Your task to perform on an android device: Go to location settings Image 0: 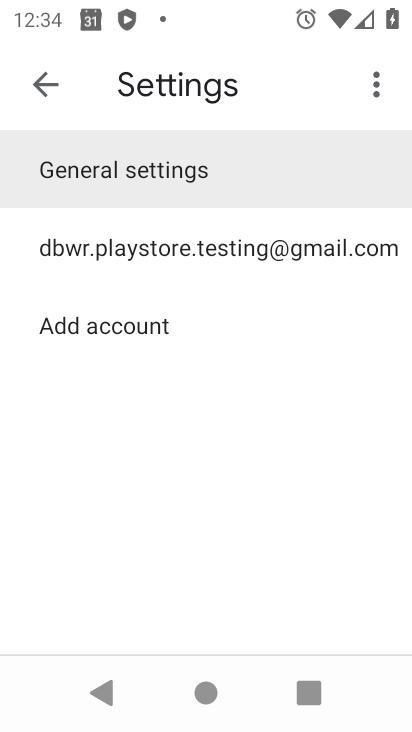
Step 0: press back button
Your task to perform on an android device: Go to location settings Image 1: 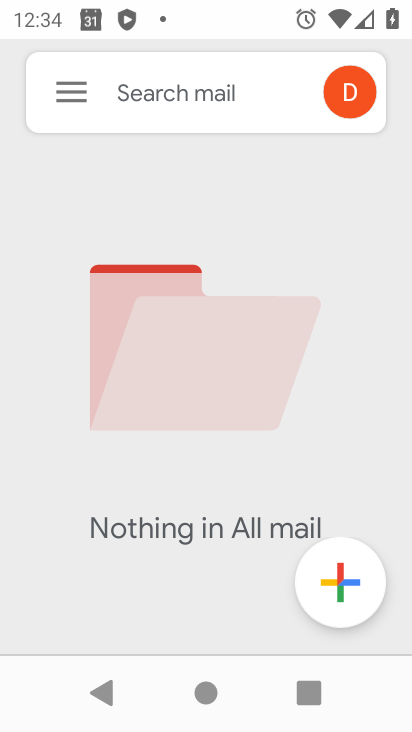
Step 1: press back button
Your task to perform on an android device: Go to location settings Image 2: 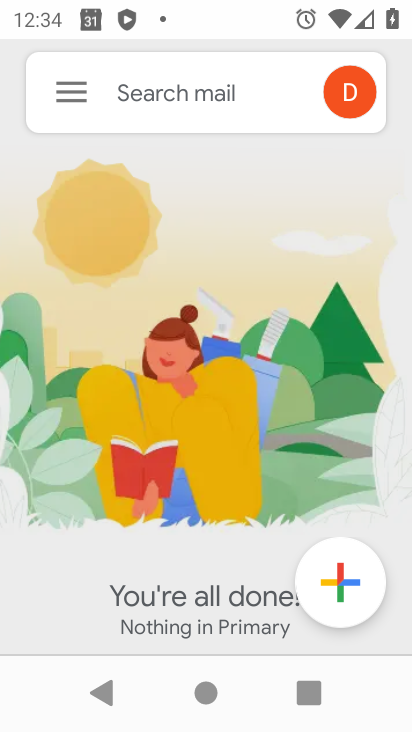
Step 2: press back button
Your task to perform on an android device: Go to location settings Image 3: 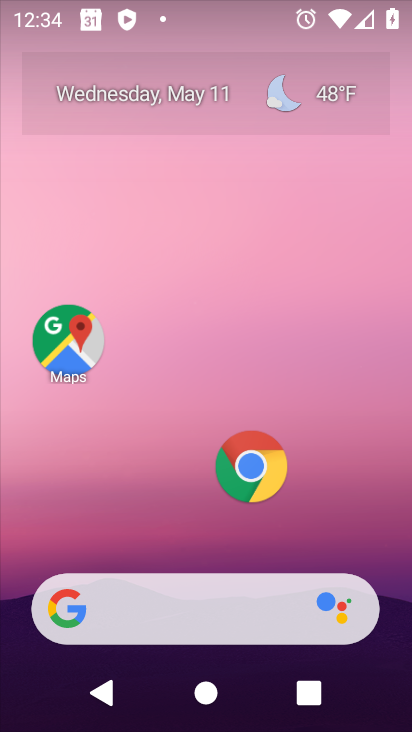
Step 3: drag from (142, 523) to (254, 57)
Your task to perform on an android device: Go to location settings Image 4: 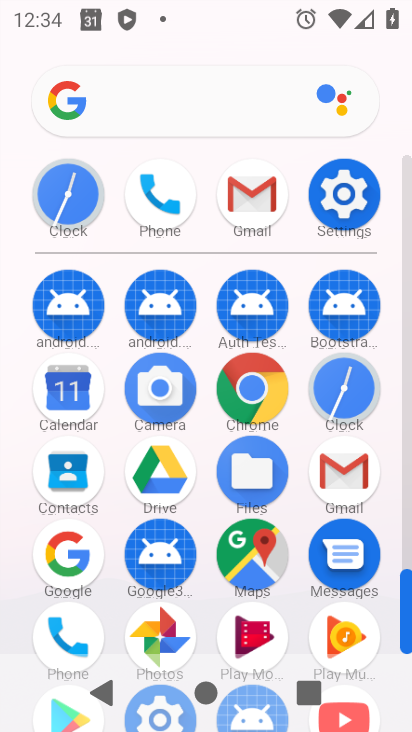
Step 4: click (343, 196)
Your task to perform on an android device: Go to location settings Image 5: 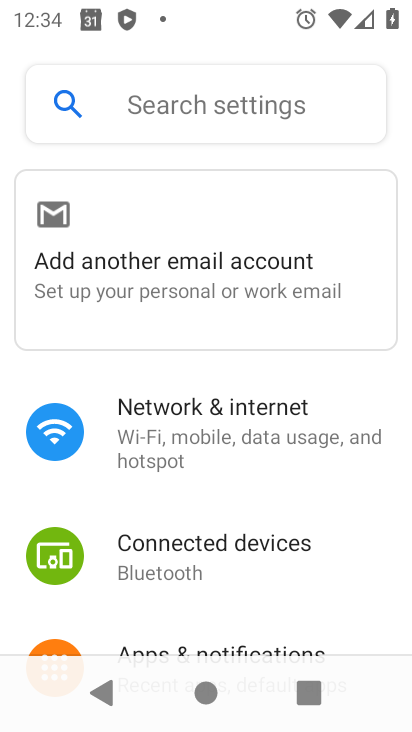
Step 5: drag from (202, 551) to (293, 28)
Your task to perform on an android device: Go to location settings Image 6: 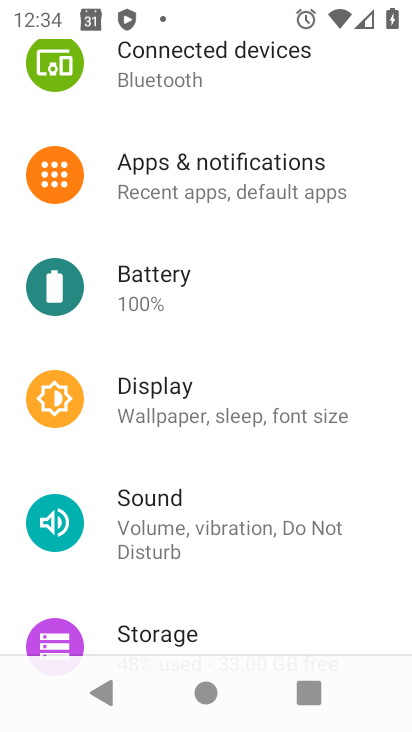
Step 6: drag from (217, 569) to (320, 37)
Your task to perform on an android device: Go to location settings Image 7: 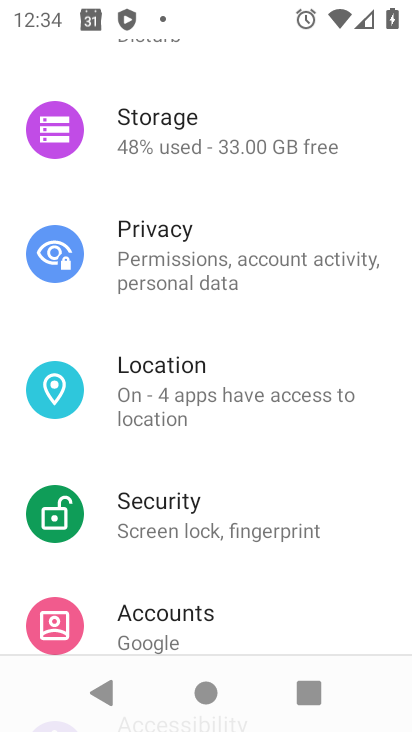
Step 7: click (172, 504)
Your task to perform on an android device: Go to location settings Image 8: 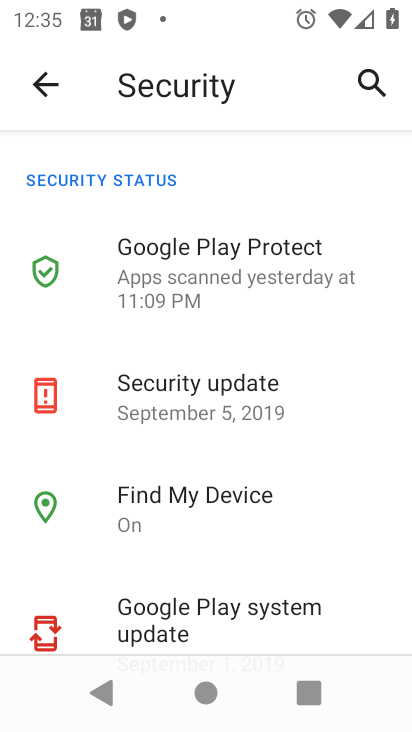
Step 8: click (37, 79)
Your task to perform on an android device: Go to location settings Image 9: 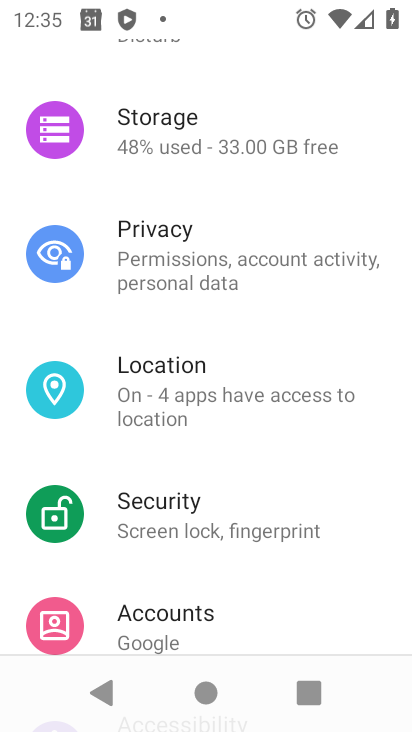
Step 9: click (158, 394)
Your task to perform on an android device: Go to location settings Image 10: 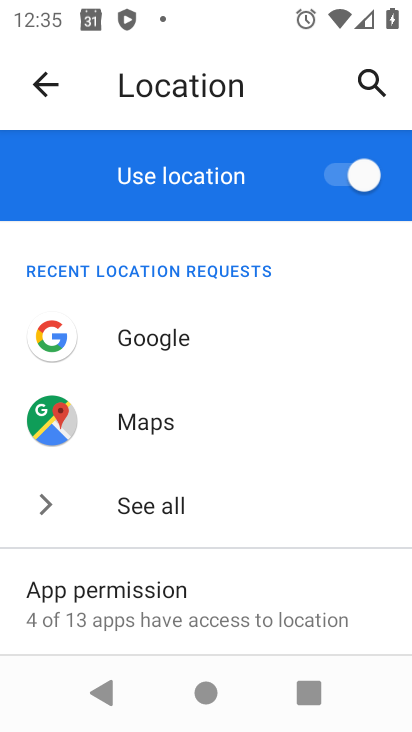
Step 10: task complete